Your task to perform on an android device: Go to sound settings Image 0: 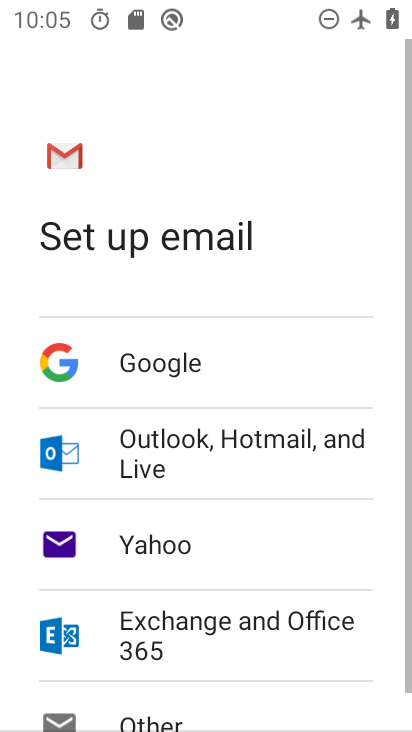
Step 0: press home button
Your task to perform on an android device: Go to sound settings Image 1: 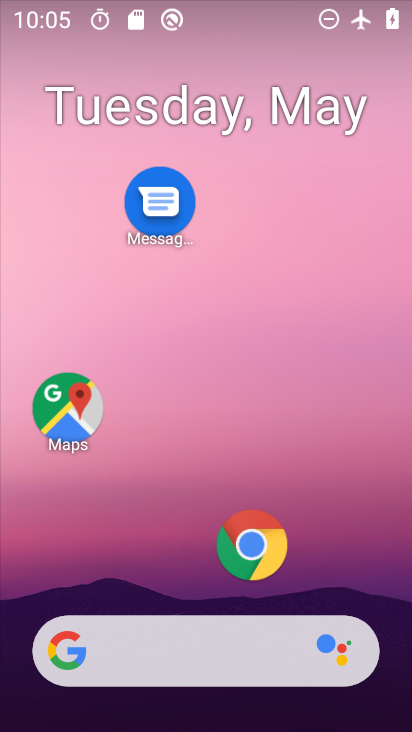
Step 1: drag from (176, 578) to (184, 177)
Your task to perform on an android device: Go to sound settings Image 2: 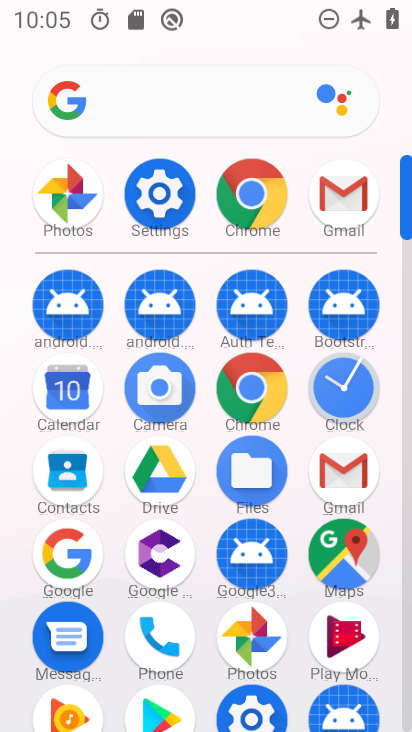
Step 2: click (158, 219)
Your task to perform on an android device: Go to sound settings Image 3: 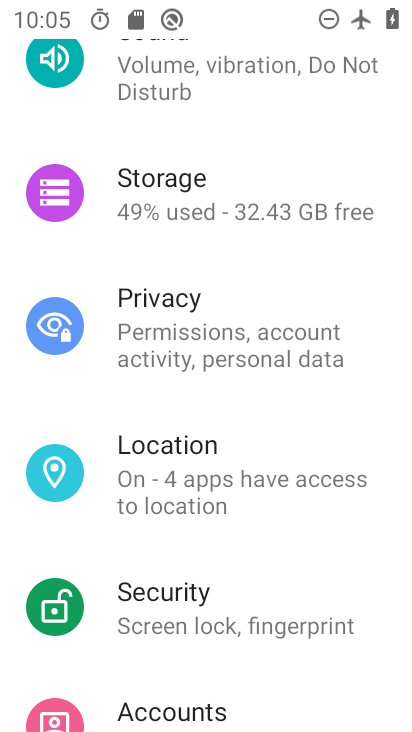
Step 3: drag from (233, 160) to (237, 476)
Your task to perform on an android device: Go to sound settings Image 4: 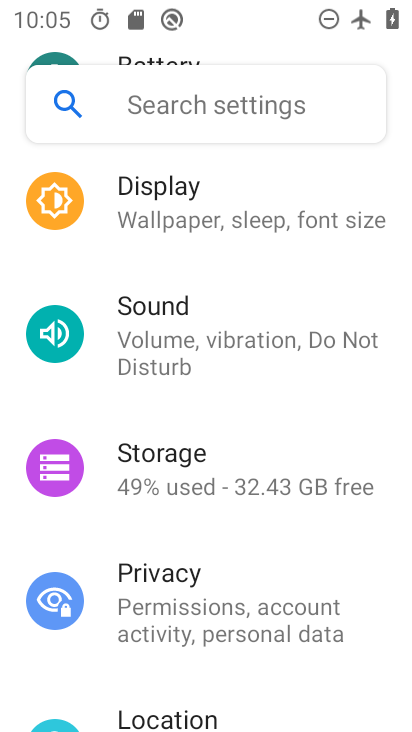
Step 4: click (187, 319)
Your task to perform on an android device: Go to sound settings Image 5: 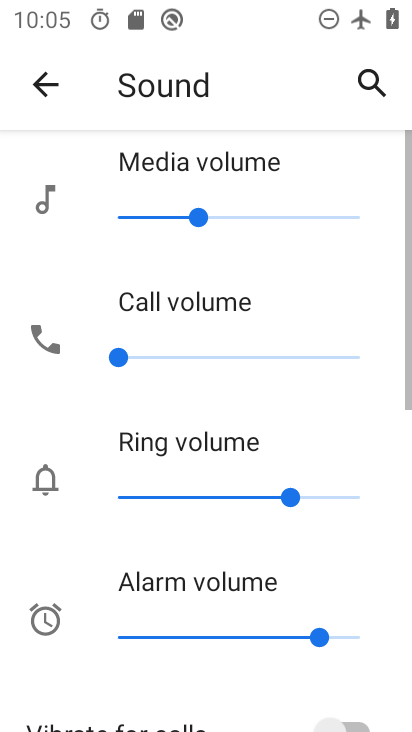
Step 5: task complete